Your task to perform on an android device: see tabs open on other devices in the chrome app Image 0: 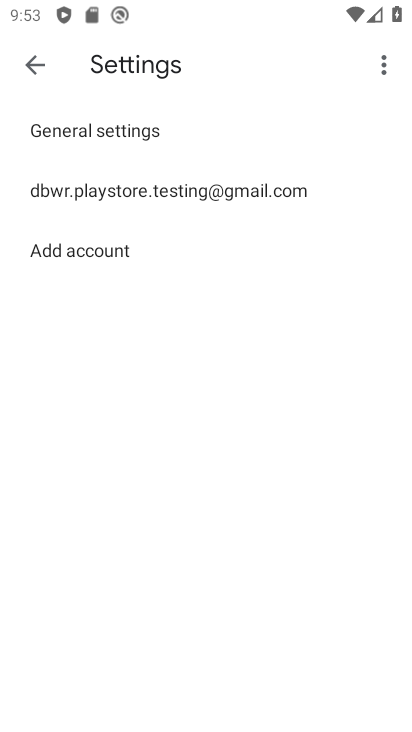
Step 0: press home button
Your task to perform on an android device: see tabs open on other devices in the chrome app Image 1: 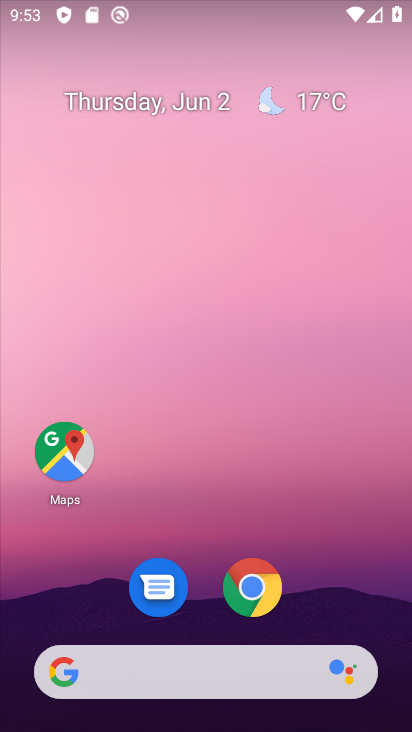
Step 1: click (249, 581)
Your task to perform on an android device: see tabs open on other devices in the chrome app Image 2: 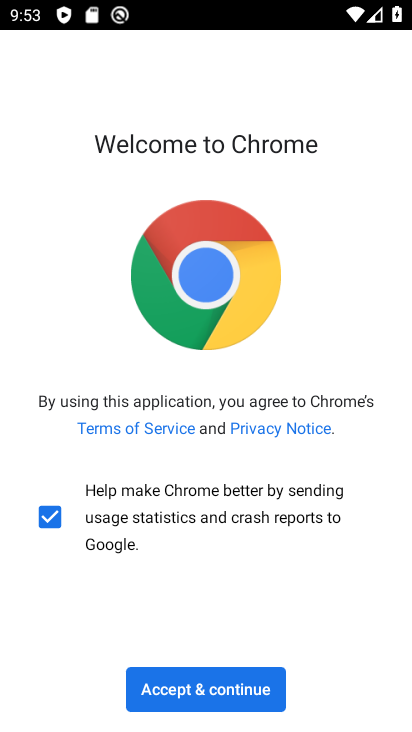
Step 2: click (198, 683)
Your task to perform on an android device: see tabs open on other devices in the chrome app Image 3: 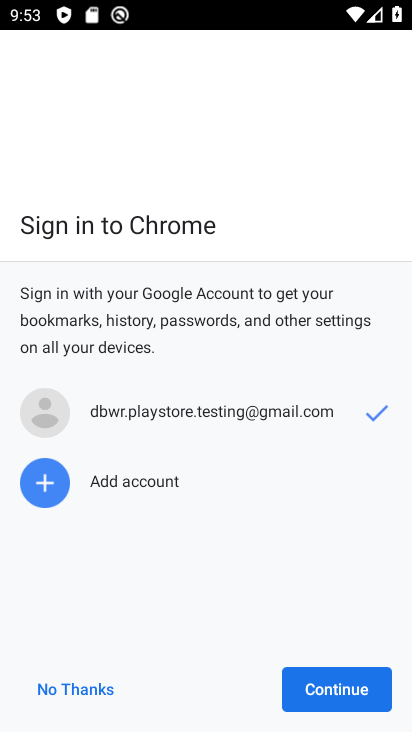
Step 3: click (337, 682)
Your task to perform on an android device: see tabs open on other devices in the chrome app Image 4: 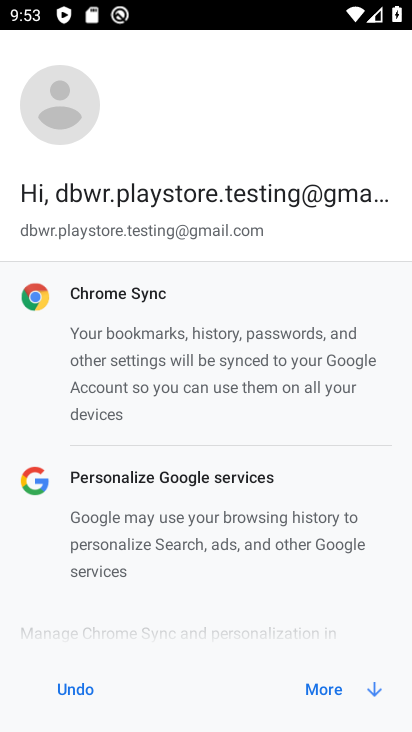
Step 4: click (337, 682)
Your task to perform on an android device: see tabs open on other devices in the chrome app Image 5: 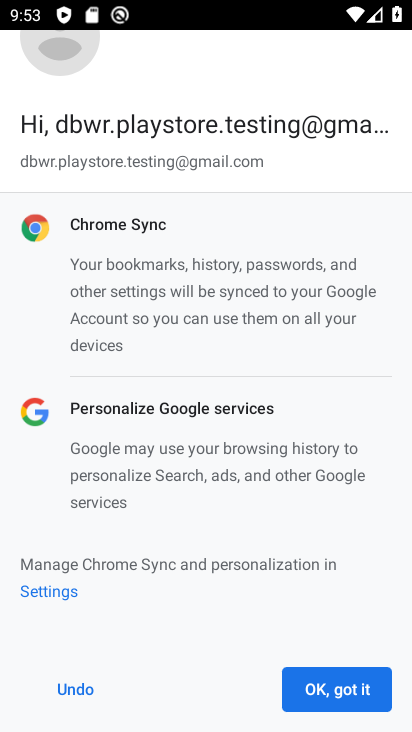
Step 5: click (338, 685)
Your task to perform on an android device: see tabs open on other devices in the chrome app Image 6: 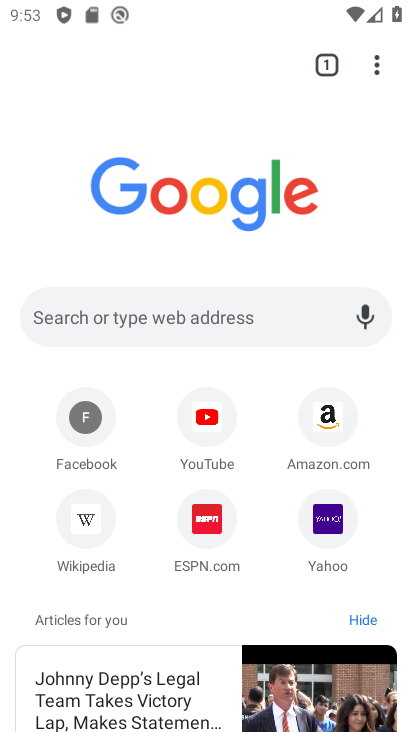
Step 6: click (373, 65)
Your task to perform on an android device: see tabs open on other devices in the chrome app Image 7: 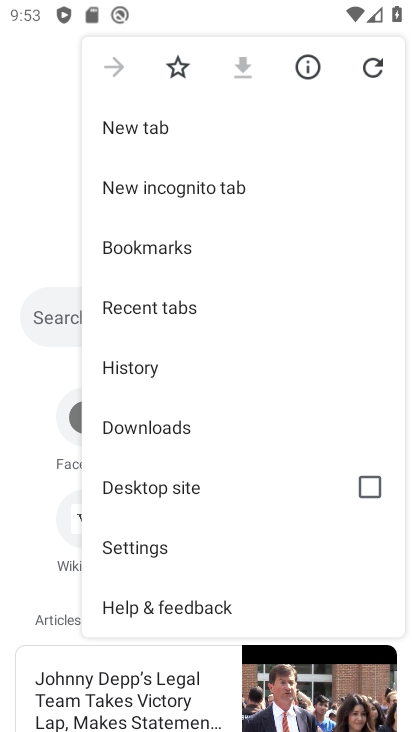
Step 7: click (203, 301)
Your task to perform on an android device: see tabs open on other devices in the chrome app Image 8: 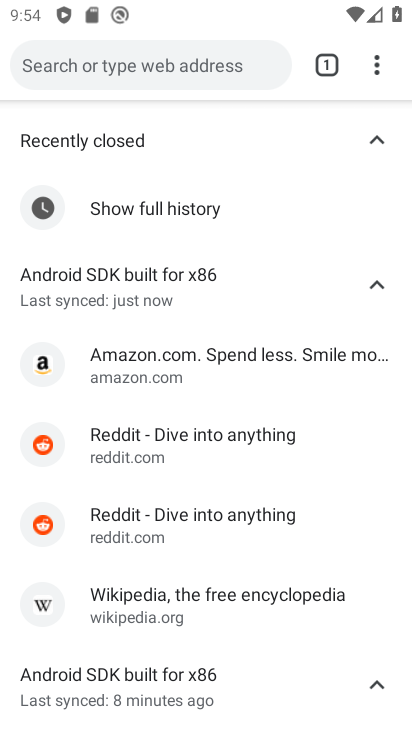
Step 8: task complete